Your task to perform on an android device: set an alarm Image 0: 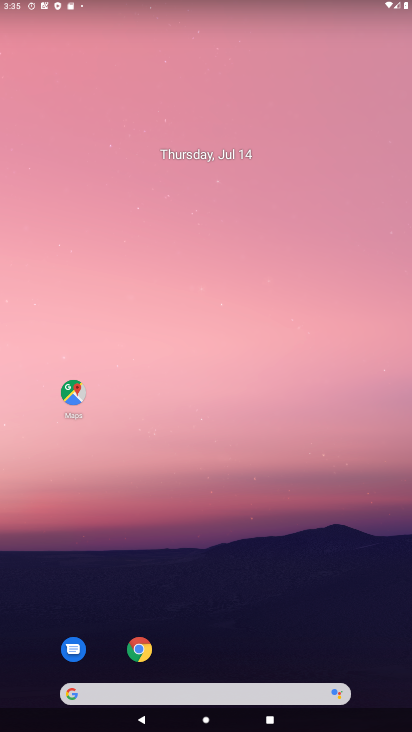
Step 0: drag from (212, 612) to (250, 10)
Your task to perform on an android device: set an alarm Image 1: 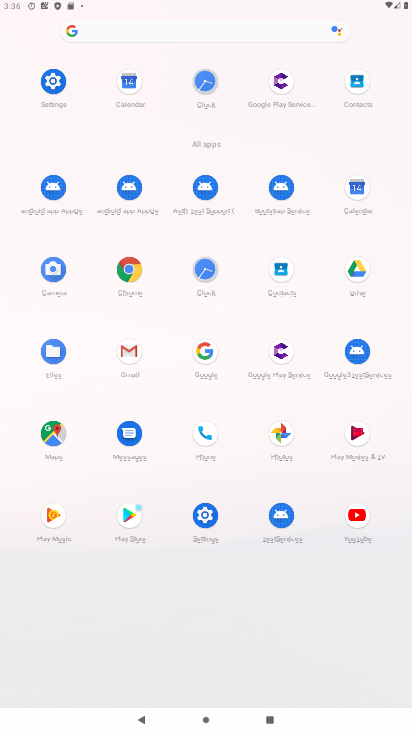
Step 1: click (212, 274)
Your task to perform on an android device: set an alarm Image 2: 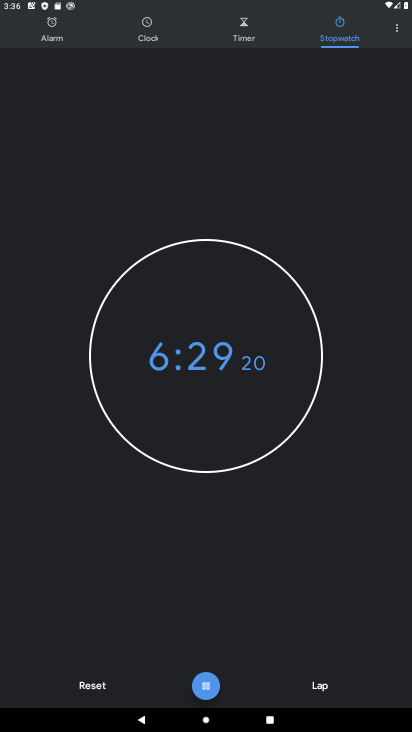
Step 2: click (90, 690)
Your task to perform on an android device: set an alarm Image 3: 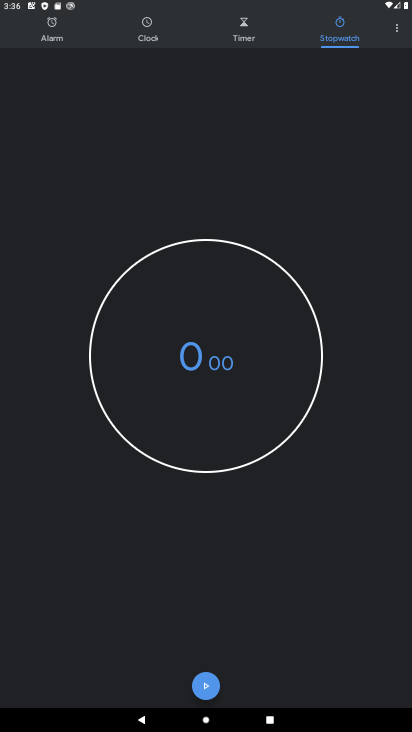
Step 3: click (53, 29)
Your task to perform on an android device: set an alarm Image 4: 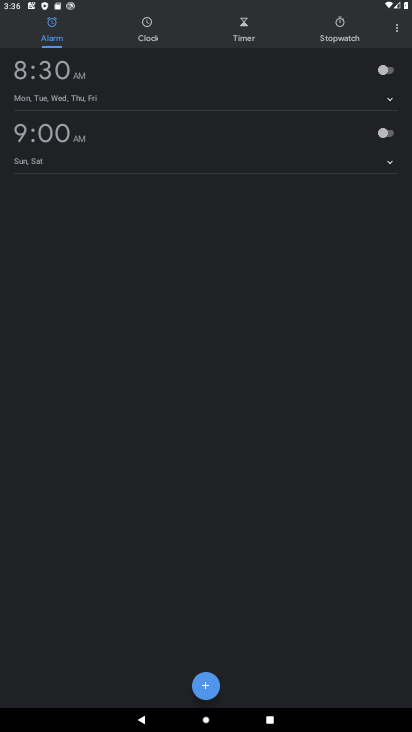
Step 4: click (397, 133)
Your task to perform on an android device: set an alarm Image 5: 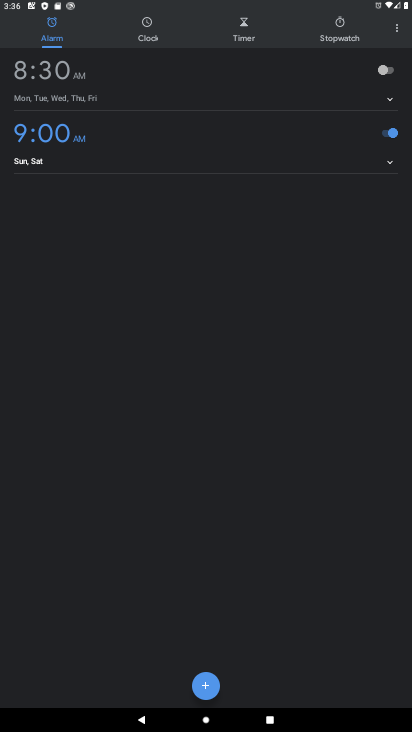
Step 5: click (397, 169)
Your task to perform on an android device: set an alarm Image 6: 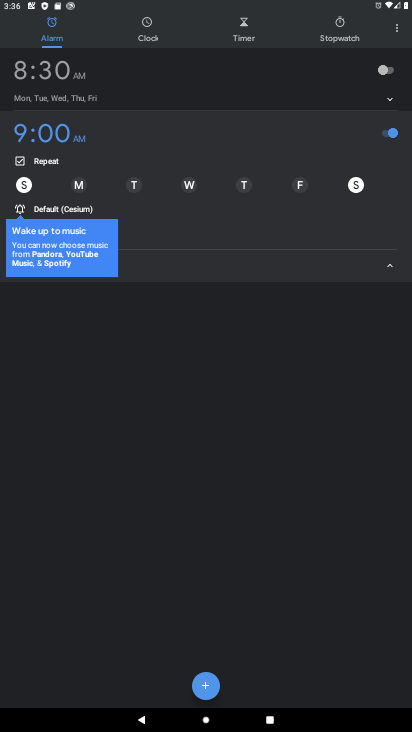
Step 6: click (218, 192)
Your task to perform on an android device: set an alarm Image 7: 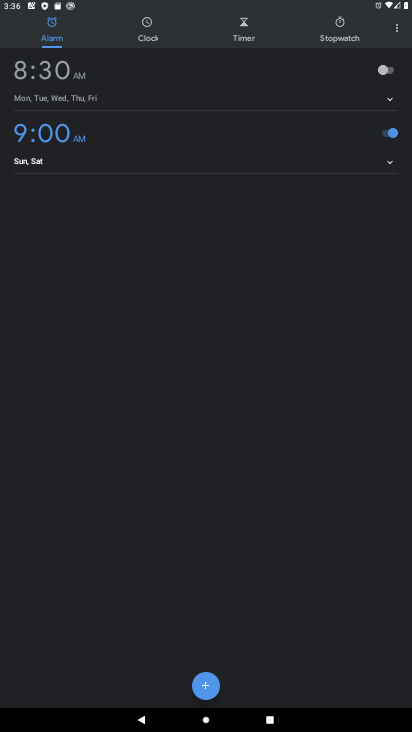
Step 7: task complete